Your task to perform on an android device: Go to network settings Image 0: 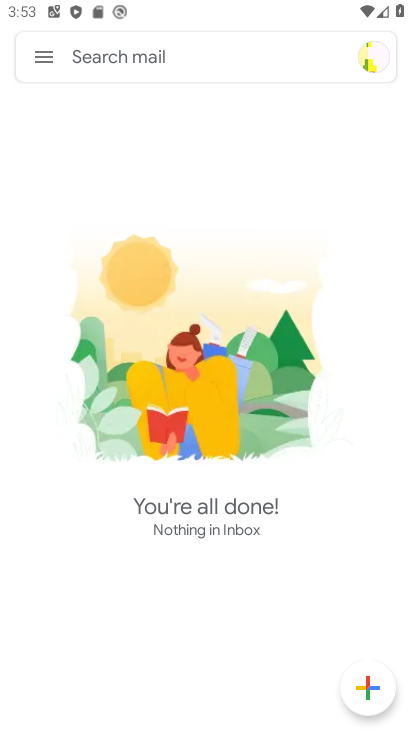
Step 0: press back button
Your task to perform on an android device: Go to network settings Image 1: 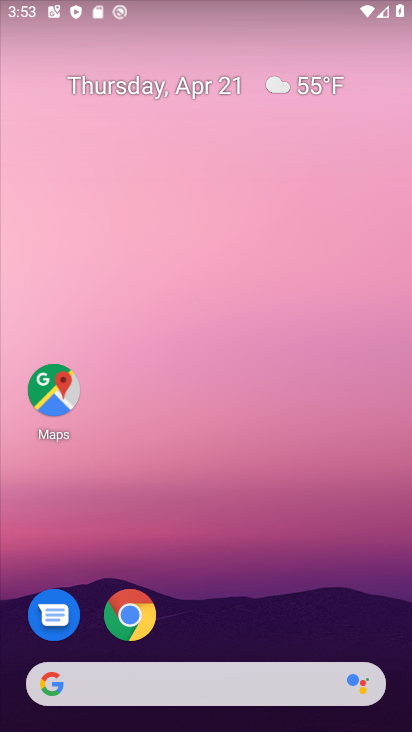
Step 1: drag from (250, 481) to (234, 36)
Your task to perform on an android device: Go to network settings Image 2: 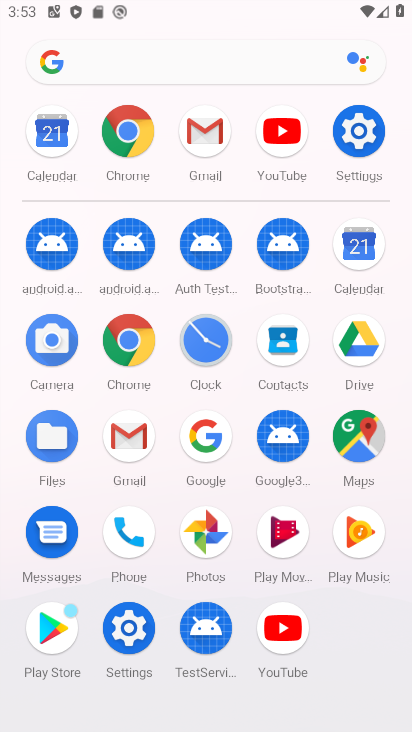
Step 2: click (356, 125)
Your task to perform on an android device: Go to network settings Image 3: 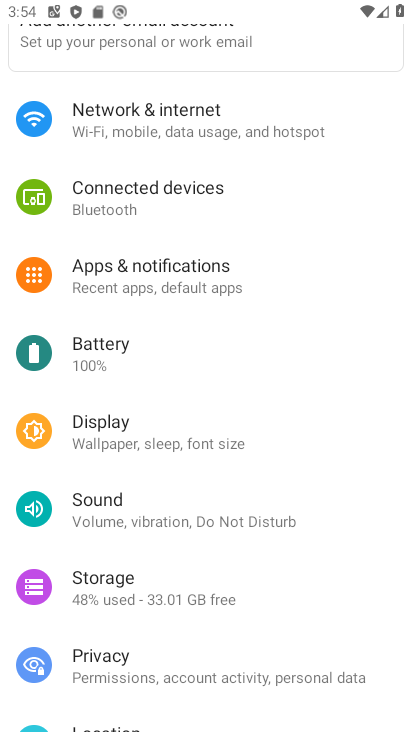
Step 3: click (230, 114)
Your task to perform on an android device: Go to network settings Image 4: 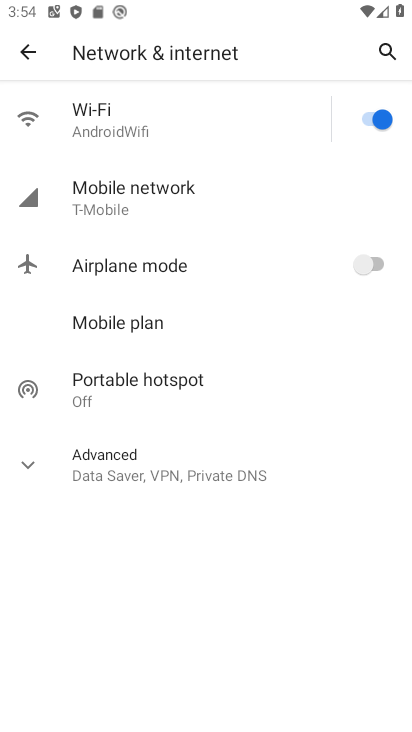
Step 4: click (156, 120)
Your task to perform on an android device: Go to network settings Image 5: 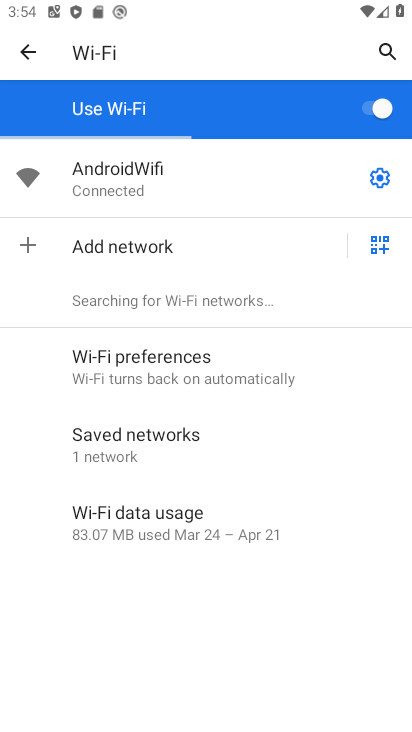
Step 5: task complete